Your task to perform on an android device: turn on the 12-hour format for clock Image 0: 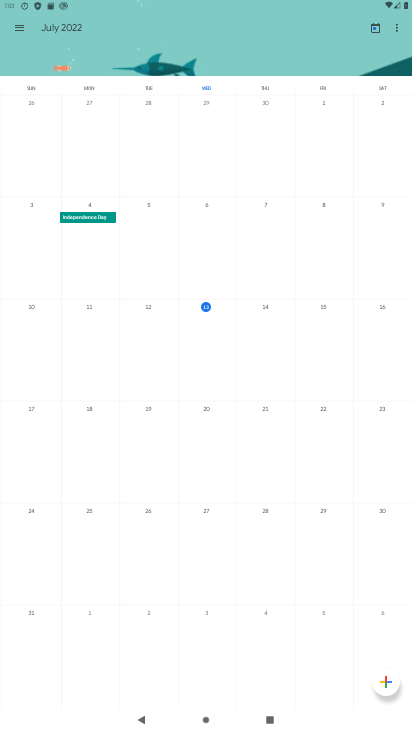
Step 0: press home button
Your task to perform on an android device: turn on the 12-hour format for clock Image 1: 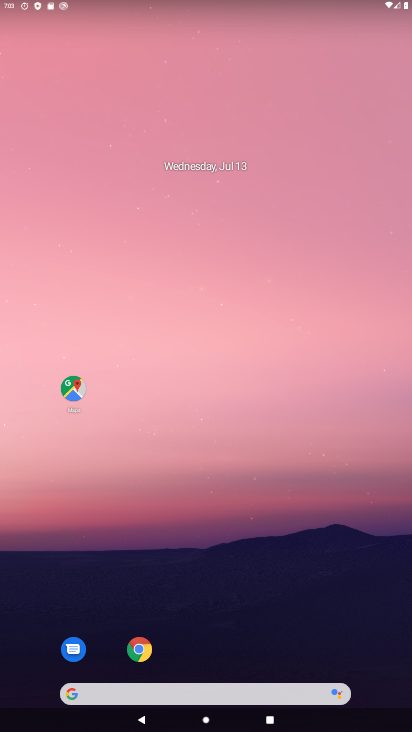
Step 1: drag from (184, 694) to (145, 100)
Your task to perform on an android device: turn on the 12-hour format for clock Image 2: 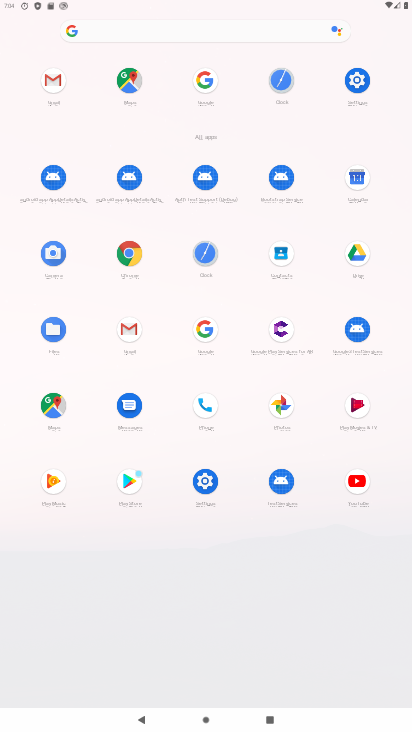
Step 2: click (282, 80)
Your task to perform on an android device: turn on the 12-hour format for clock Image 3: 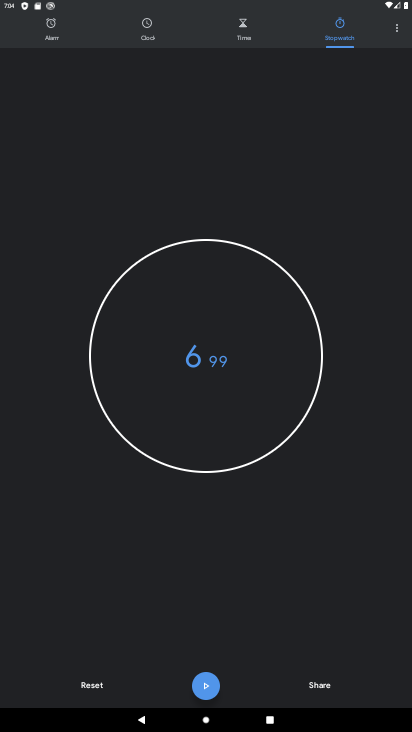
Step 3: click (397, 30)
Your task to perform on an android device: turn on the 12-hour format for clock Image 4: 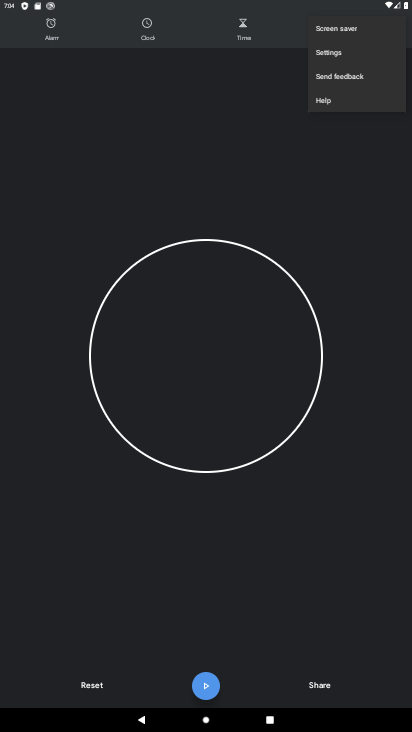
Step 4: click (340, 56)
Your task to perform on an android device: turn on the 12-hour format for clock Image 5: 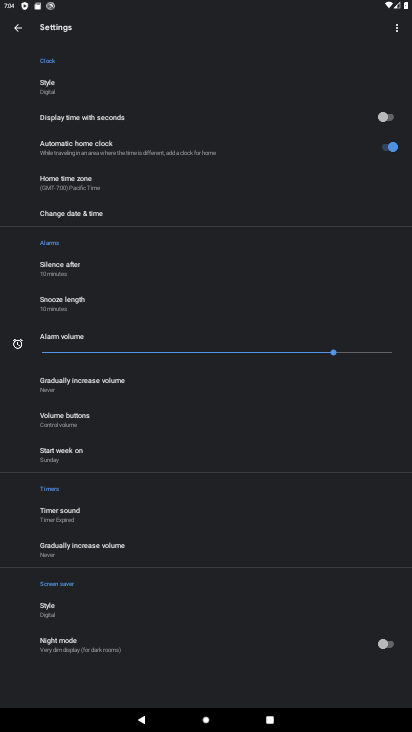
Step 5: click (92, 216)
Your task to perform on an android device: turn on the 12-hour format for clock Image 6: 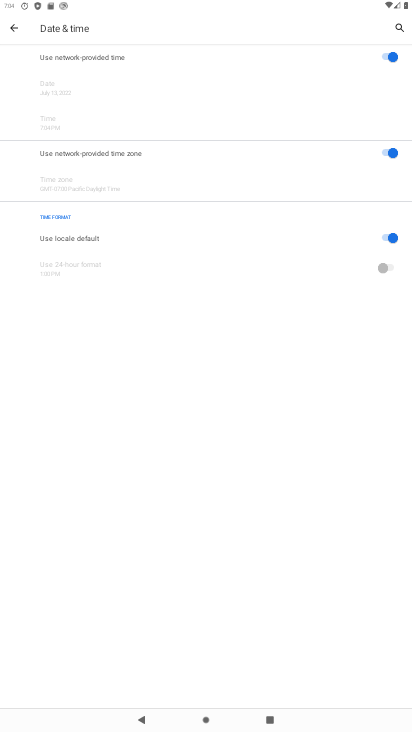
Step 6: task complete